Your task to perform on an android device: turn pop-ups on in chrome Image 0: 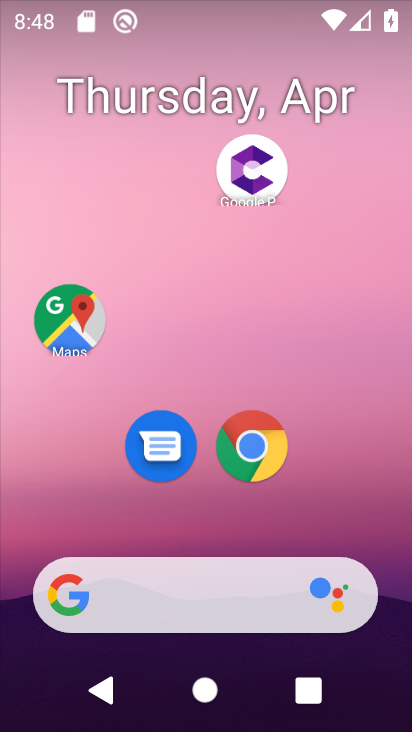
Step 0: click (262, 458)
Your task to perform on an android device: turn pop-ups on in chrome Image 1: 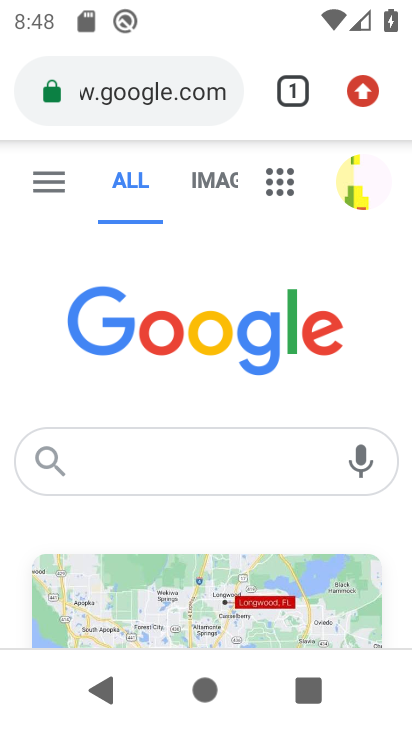
Step 1: click (364, 96)
Your task to perform on an android device: turn pop-ups on in chrome Image 2: 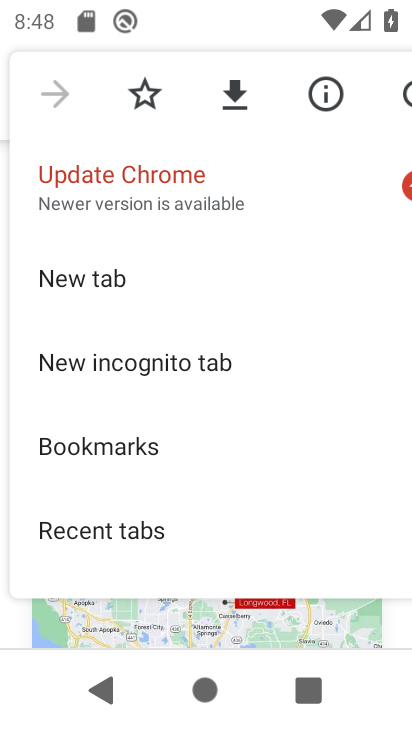
Step 2: drag from (167, 545) to (224, 63)
Your task to perform on an android device: turn pop-ups on in chrome Image 3: 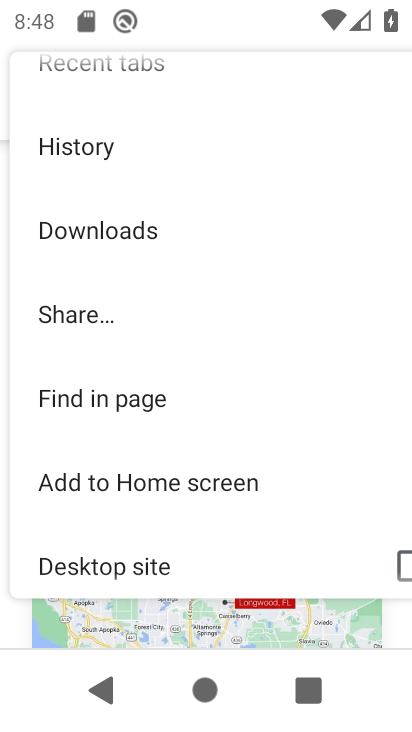
Step 3: drag from (160, 538) to (190, 183)
Your task to perform on an android device: turn pop-ups on in chrome Image 4: 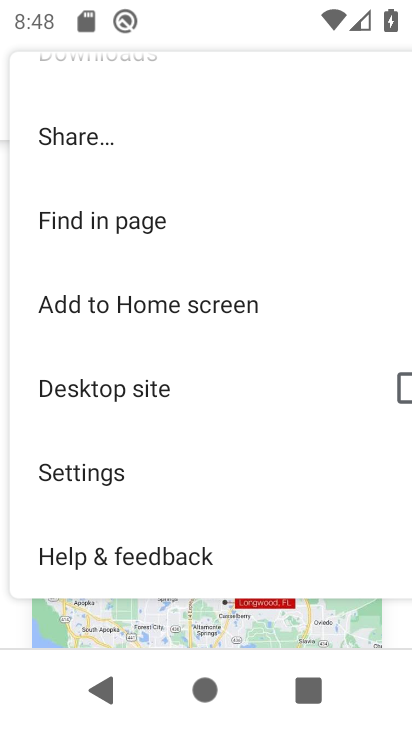
Step 4: click (95, 471)
Your task to perform on an android device: turn pop-ups on in chrome Image 5: 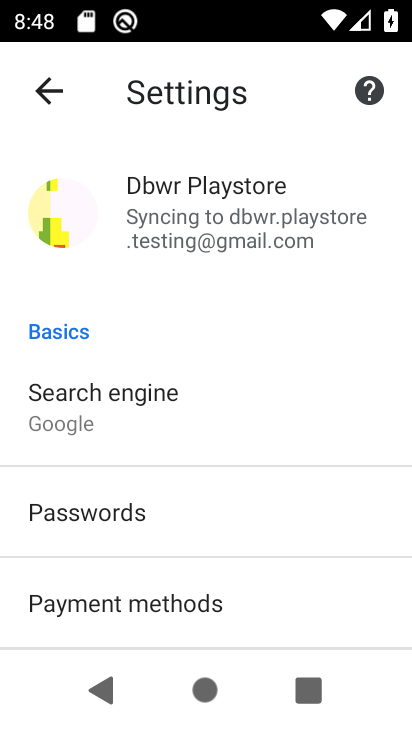
Step 5: drag from (164, 548) to (195, 193)
Your task to perform on an android device: turn pop-ups on in chrome Image 6: 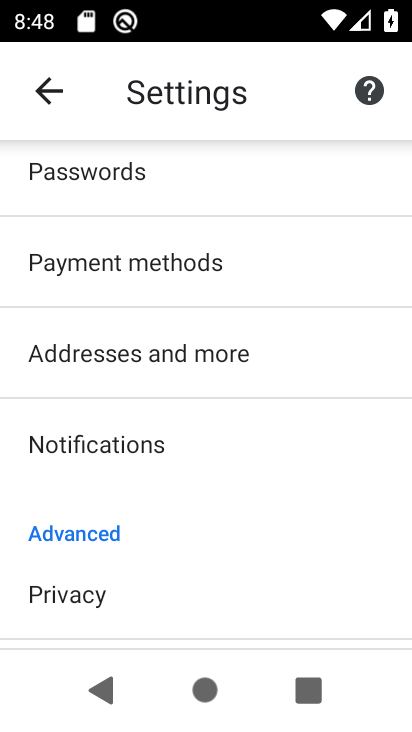
Step 6: drag from (202, 437) to (239, 93)
Your task to perform on an android device: turn pop-ups on in chrome Image 7: 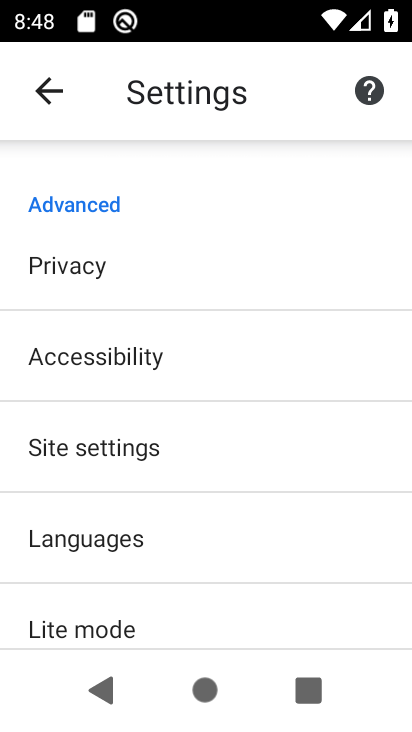
Step 7: click (156, 447)
Your task to perform on an android device: turn pop-ups on in chrome Image 8: 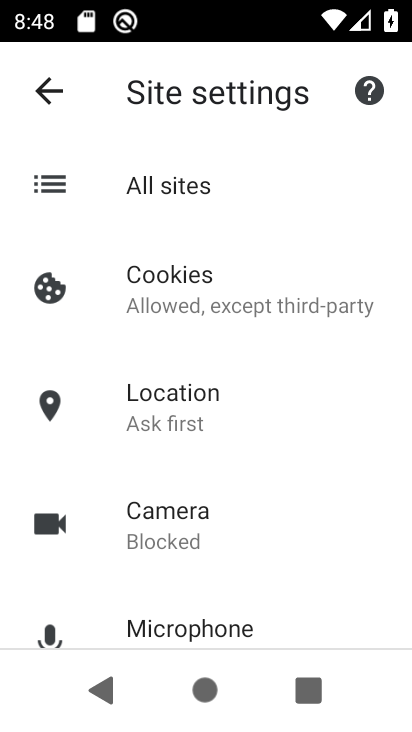
Step 8: drag from (223, 462) to (265, 207)
Your task to perform on an android device: turn pop-ups on in chrome Image 9: 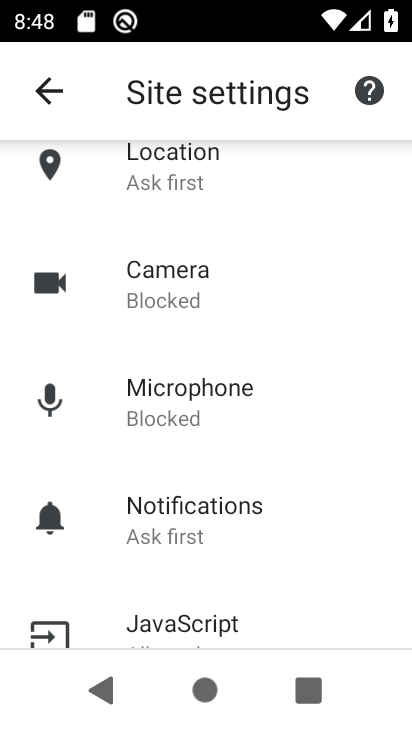
Step 9: drag from (188, 493) to (206, 330)
Your task to perform on an android device: turn pop-ups on in chrome Image 10: 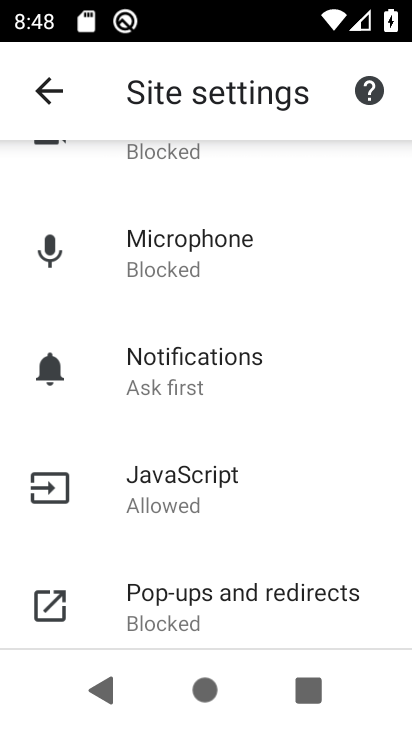
Step 10: click (203, 598)
Your task to perform on an android device: turn pop-ups on in chrome Image 11: 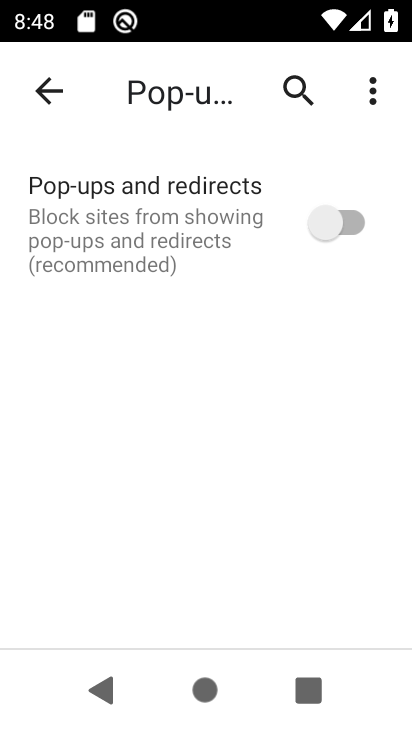
Step 11: click (331, 211)
Your task to perform on an android device: turn pop-ups on in chrome Image 12: 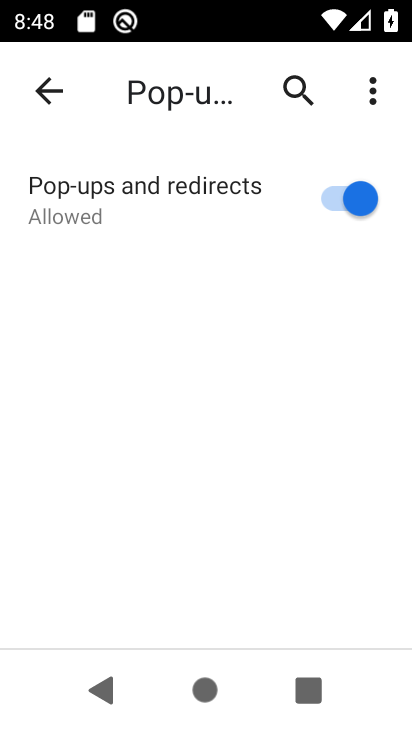
Step 12: task complete